Your task to perform on an android device: Go to ESPN.com Image 0: 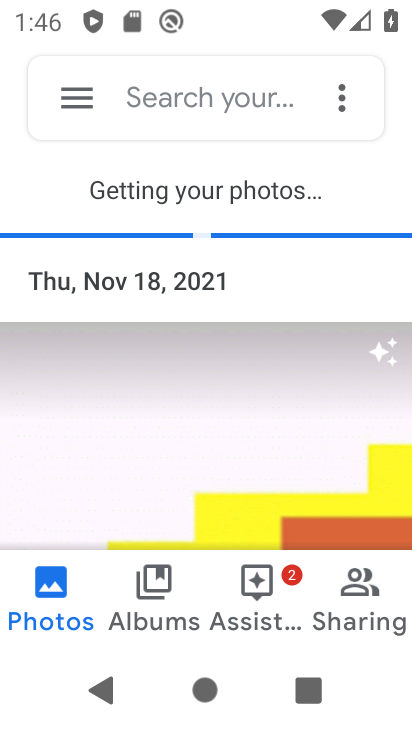
Step 0: press home button
Your task to perform on an android device: Go to ESPN.com Image 1: 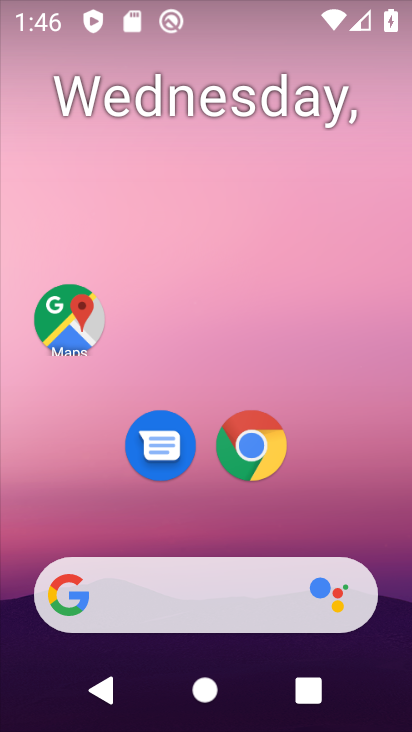
Step 1: click (238, 468)
Your task to perform on an android device: Go to ESPN.com Image 2: 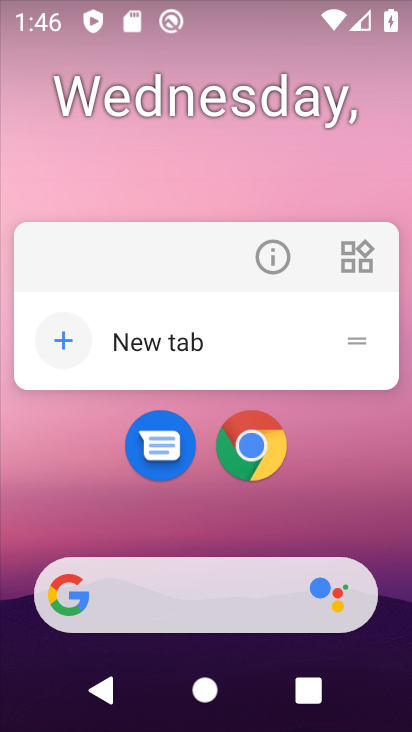
Step 2: click (238, 468)
Your task to perform on an android device: Go to ESPN.com Image 3: 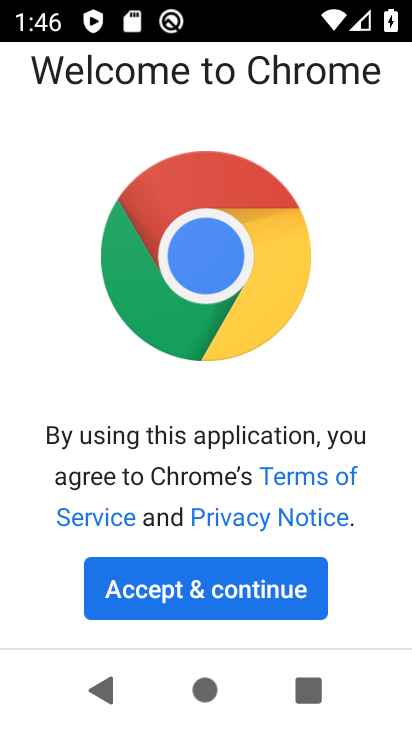
Step 3: click (224, 569)
Your task to perform on an android device: Go to ESPN.com Image 4: 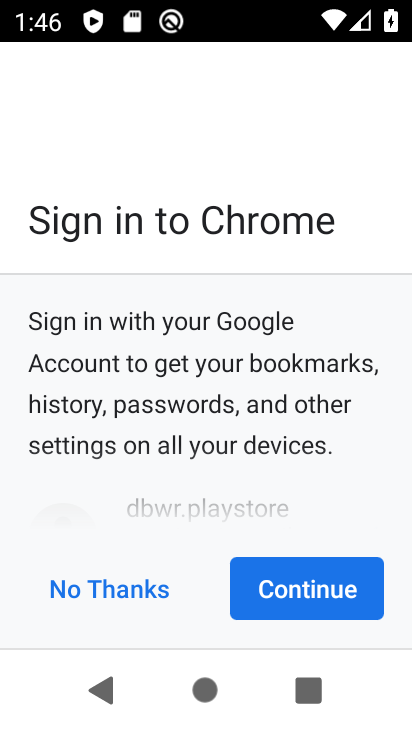
Step 4: click (224, 569)
Your task to perform on an android device: Go to ESPN.com Image 5: 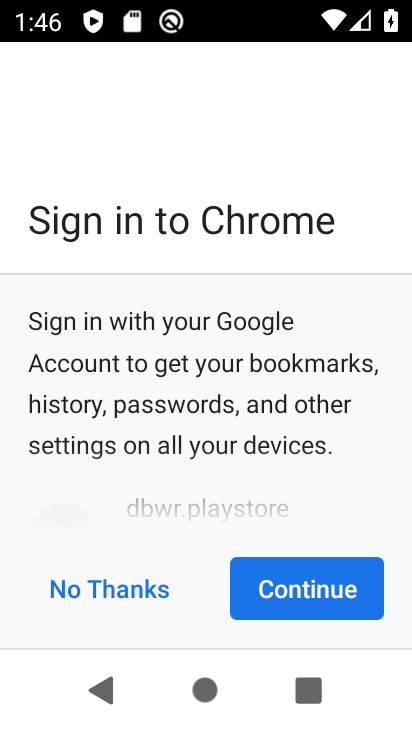
Step 5: click (292, 577)
Your task to perform on an android device: Go to ESPN.com Image 6: 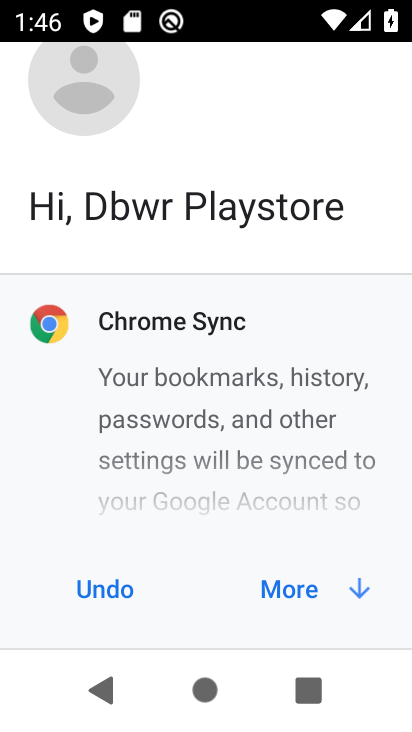
Step 6: click (289, 611)
Your task to perform on an android device: Go to ESPN.com Image 7: 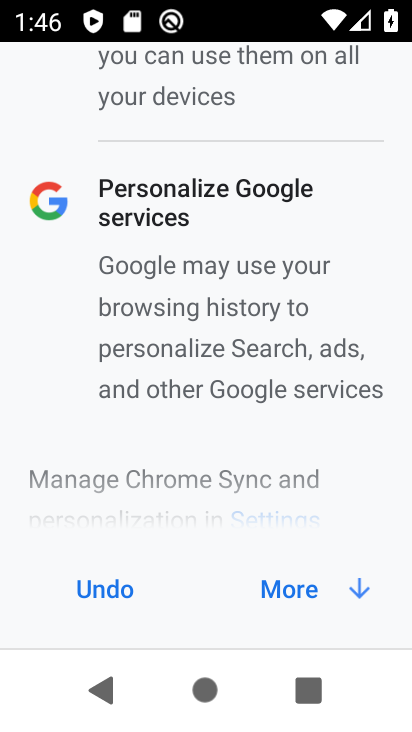
Step 7: click (294, 588)
Your task to perform on an android device: Go to ESPN.com Image 8: 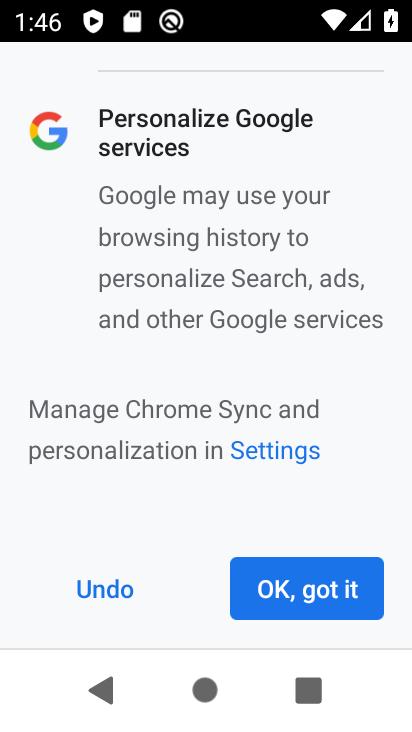
Step 8: click (294, 588)
Your task to perform on an android device: Go to ESPN.com Image 9: 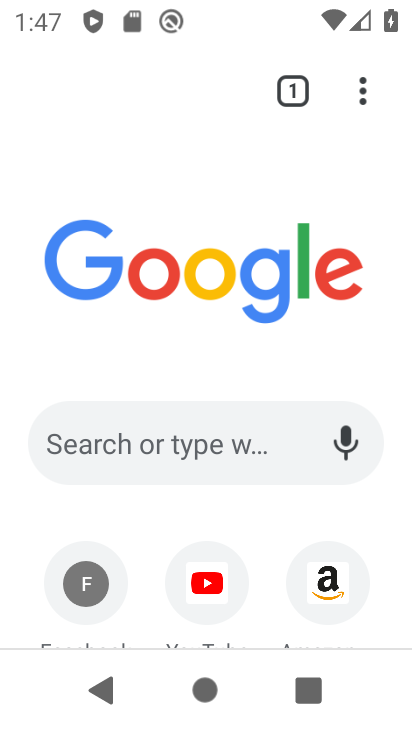
Step 9: drag from (218, 530) to (224, 256)
Your task to perform on an android device: Go to ESPN.com Image 10: 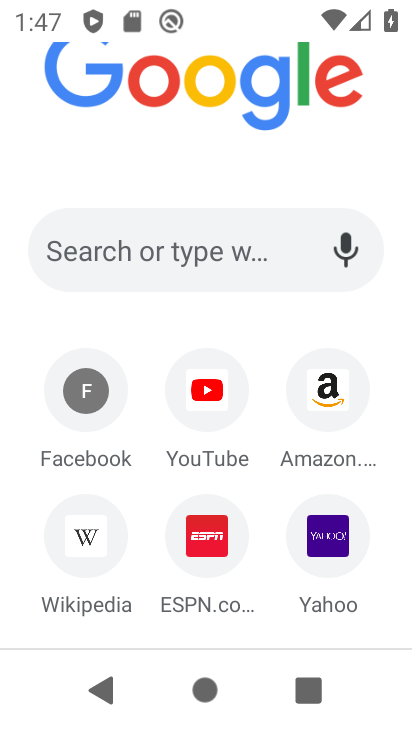
Step 10: click (190, 524)
Your task to perform on an android device: Go to ESPN.com Image 11: 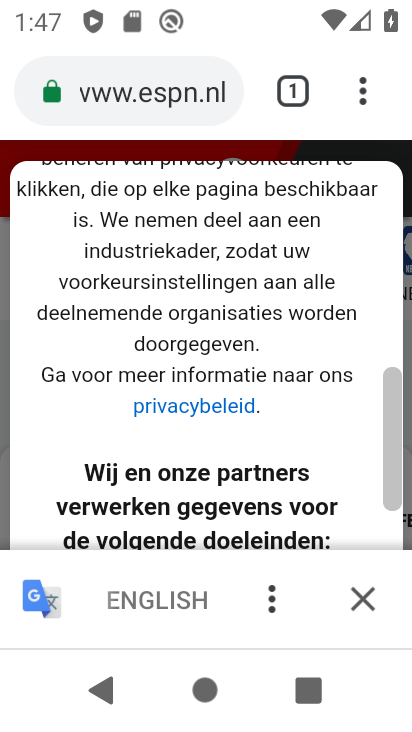
Step 11: task complete